Your task to perform on an android device: Open calendar and show me the second week of next month Image 0: 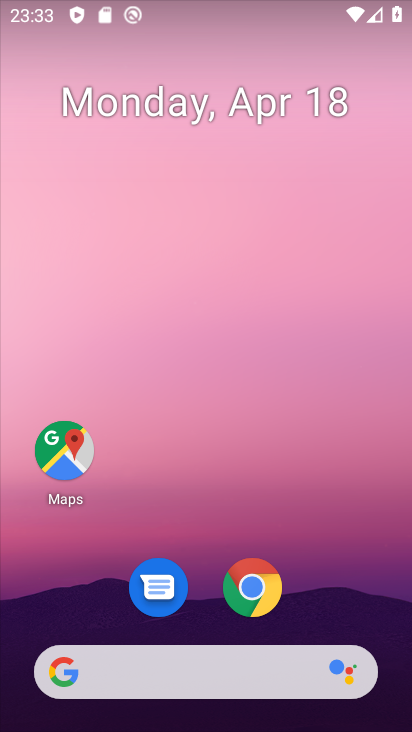
Step 0: drag from (370, 586) to (371, 153)
Your task to perform on an android device: Open calendar and show me the second week of next month Image 1: 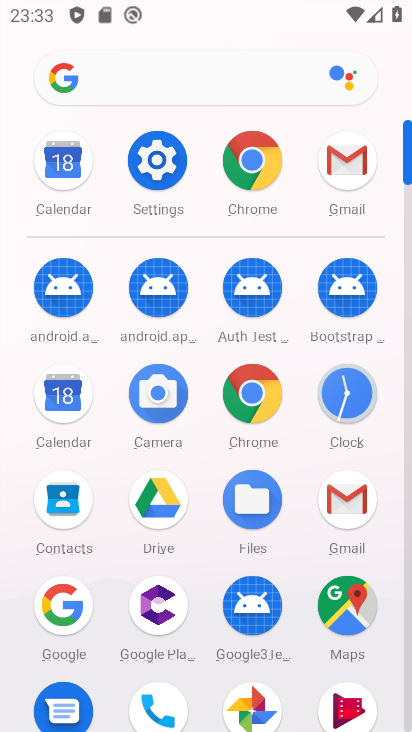
Step 1: click (75, 400)
Your task to perform on an android device: Open calendar and show me the second week of next month Image 2: 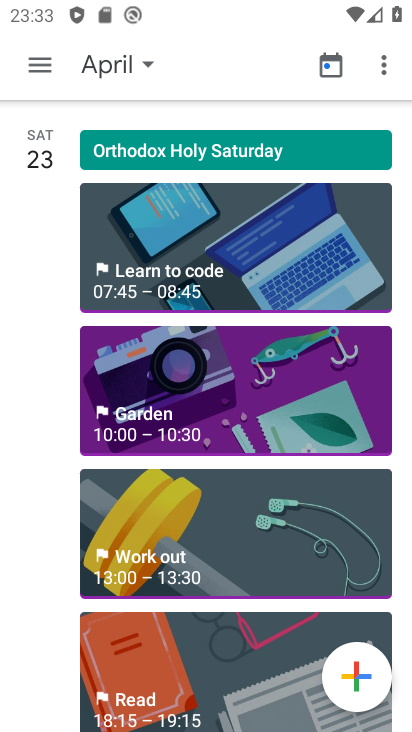
Step 2: click (120, 63)
Your task to perform on an android device: Open calendar and show me the second week of next month Image 3: 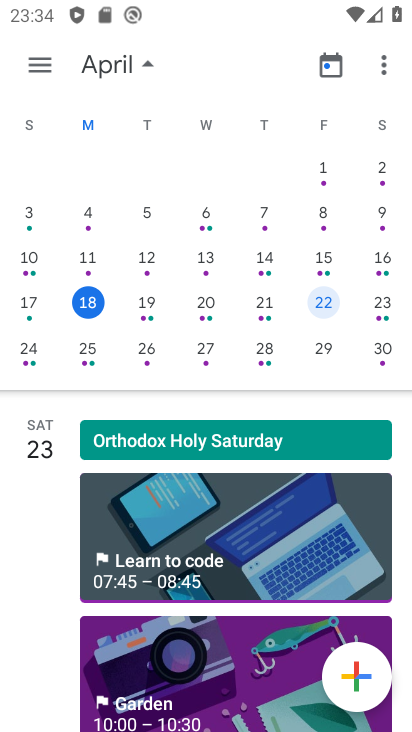
Step 3: drag from (361, 152) to (116, 143)
Your task to perform on an android device: Open calendar and show me the second week of next month Image 4: 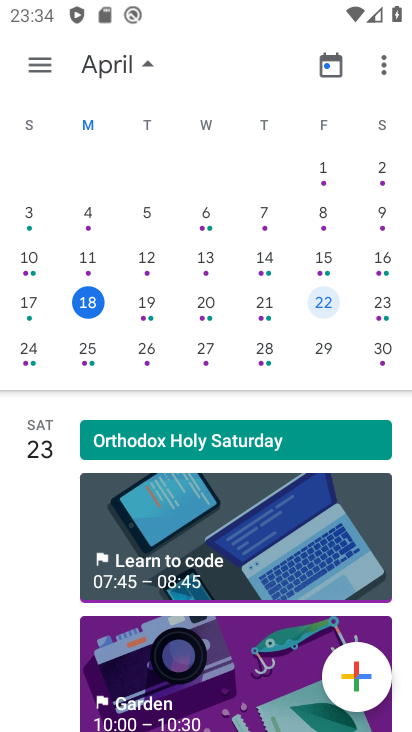
Step 4: drag from (348, 152) to (11, 146)
Your task to perform on an android device: Open calendar and show me the second week of next month Image 5: 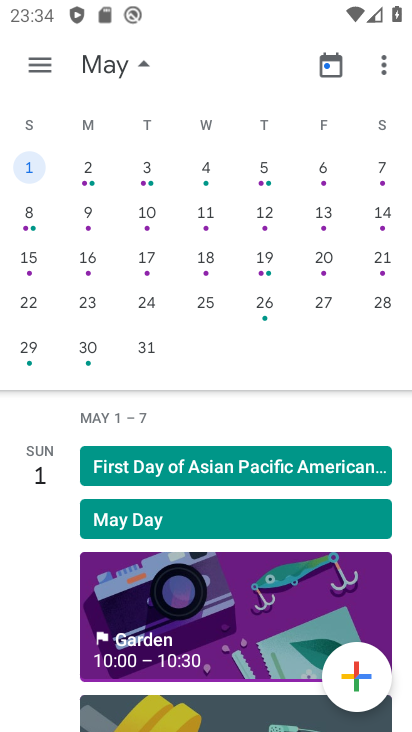
Step 5: click (30, 211)
Your task to perform on an android device: Open calendar and show me the second week of next month Image 6: 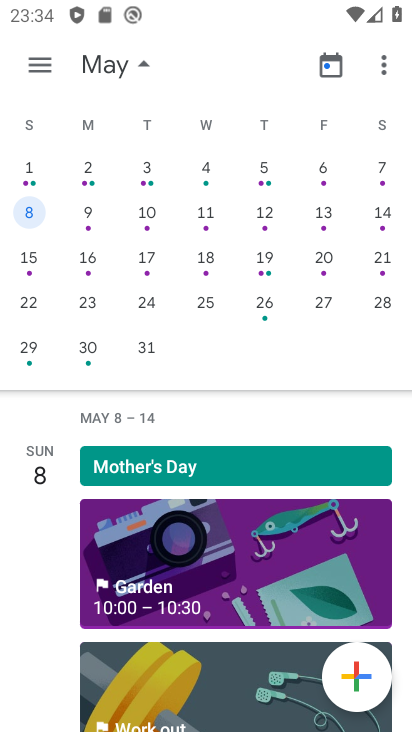
Step 6: task complete